Your task to perform on an android device: Show me popular games on the Play Store Image 0: 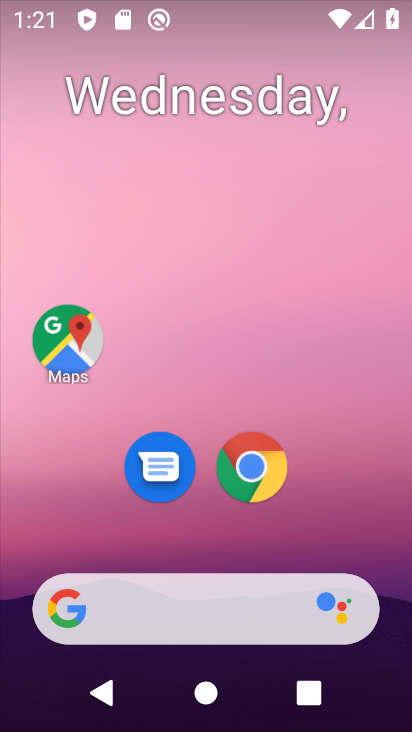
Step 0: drag from (351, 550) to (254, 34)
Your task to perform on an android device: Show me popular games on the Play Store Image 1: 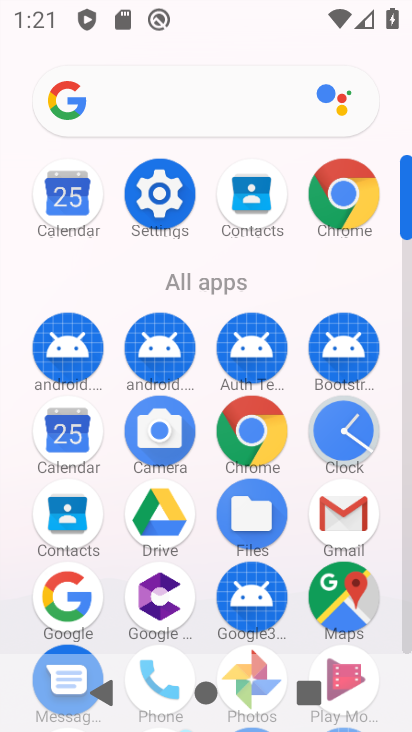
Step 1: drag from (244, 480) to (230, 126)
Your task to perform on an android device: Show me popular games on the Play Store Image 2: 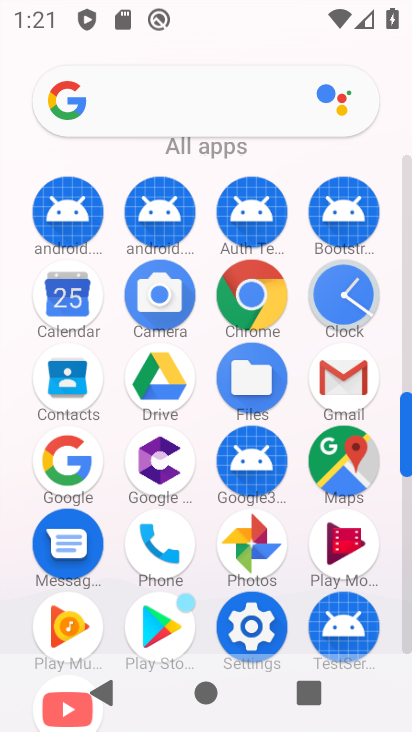
Step 2: click (177, 615)
Your task to perform on an android device: Show me popular games on the Play Store Image 3: 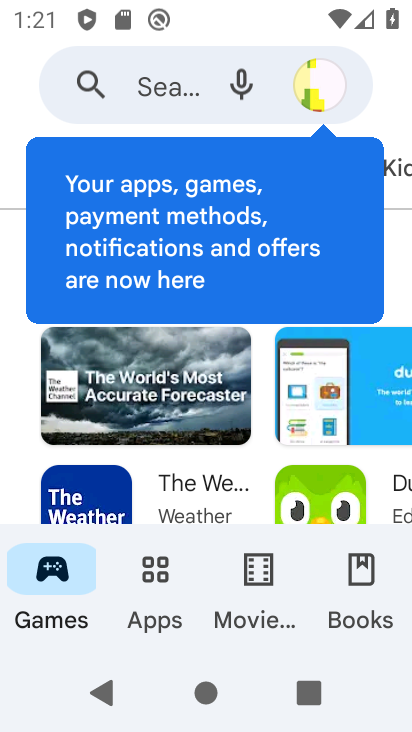
Step 3: click (11, 193)
Your task to perform on an android device: Show me popular games on the Play Store Image 4: 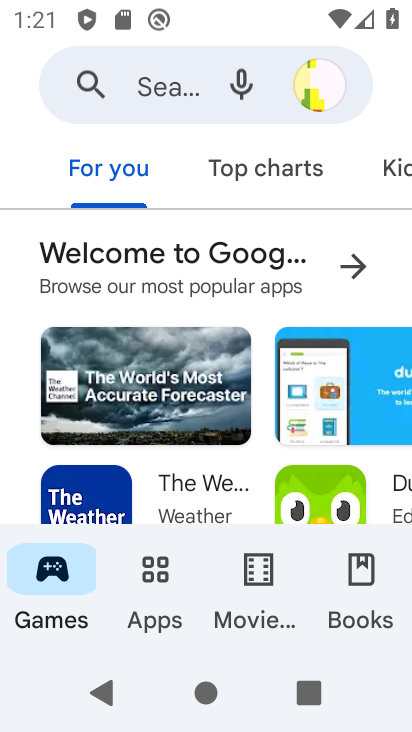
Step 4: click (231, 172)
Your task to perform on an android device: Show me popular games on the Play Store Image 5: 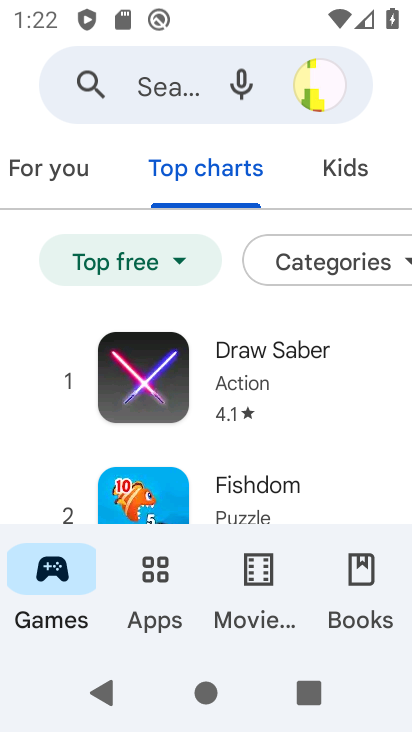
Step 5: task complete